Your task to perform on an android device: Open the map Image 0: 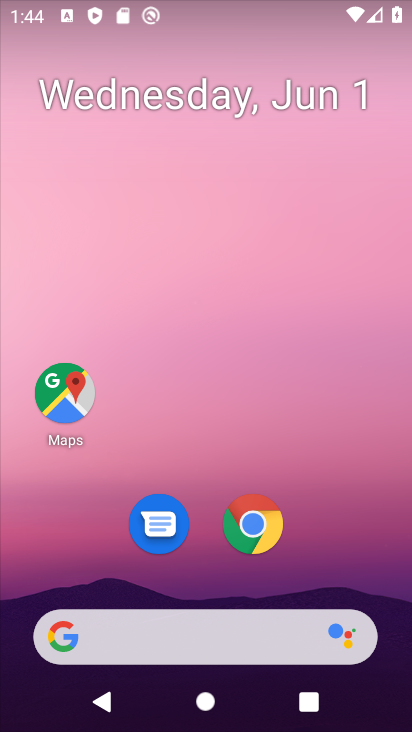
Step 0: click (68, 391)
Your task to perform on an android device: Open the map Image 1: 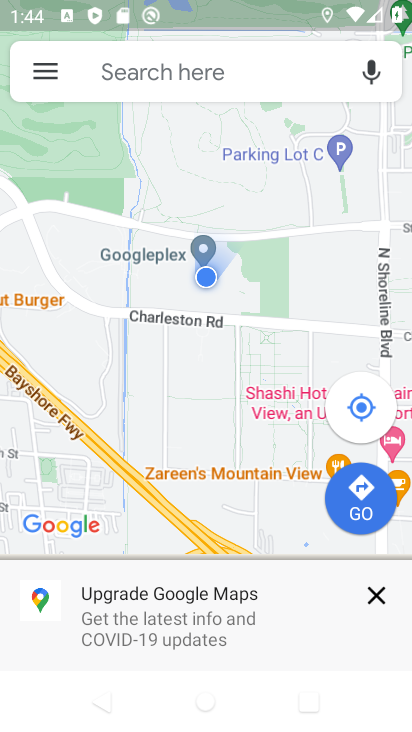
Step 1: task complete